Your task to perform on an android device: What's the price of the Vizio TV? Image 0: 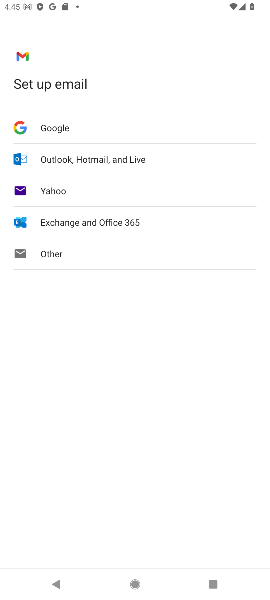
Step 0: press home button
Your task to perform on an android device: What's the price of the Vizio TV? Image 1: 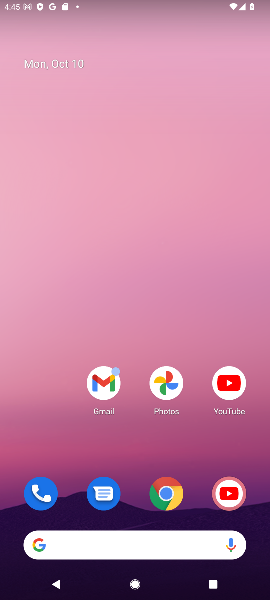
Step 1: click (110, 556)
Your task to perform on an android device: What's the price of the Vizio TV? Image 2: 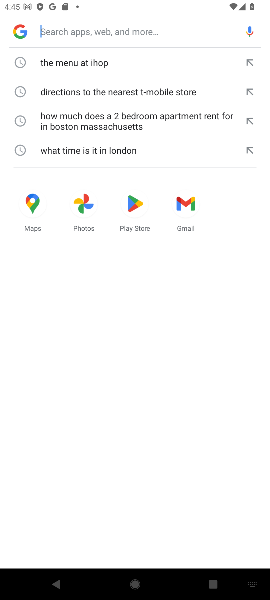
Step 2: type "What's the price of the Vizio TV?"
Your task to perform on an android device: What's the price of the Vizio TV? Image 3: 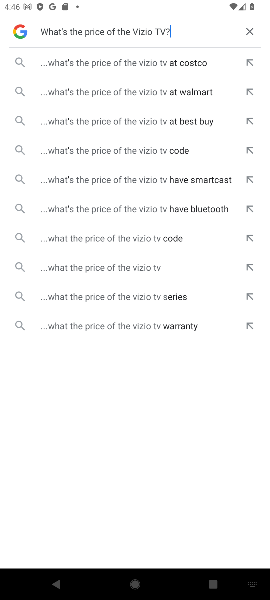
Step 3: click (155, 52)
Your task to perform on an android device: What's the price of the Vizio TV? Image 4: 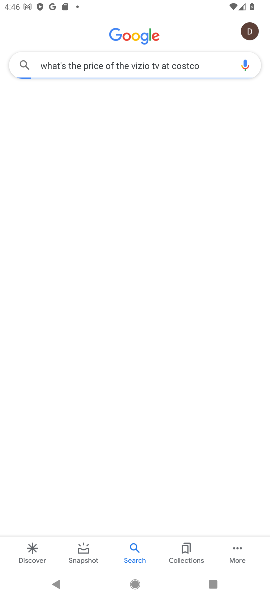
Step 4: task complete